Your task to perform on an android device: turn on javascript in the chrome app Image 0: 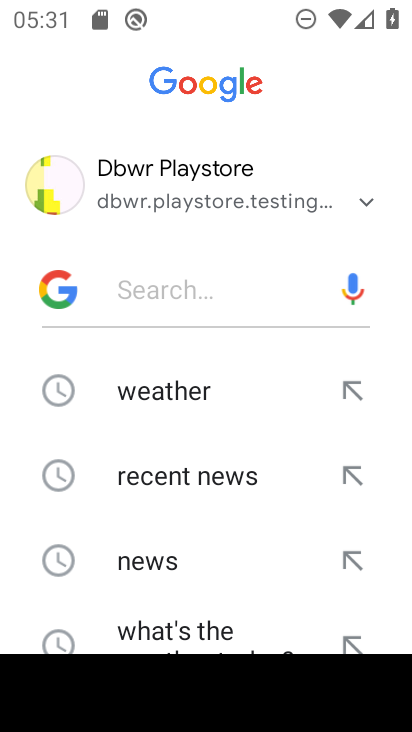
Step 0: press back button
Your task to perform on an android device: turn on javascript in the chrome app Image 1: 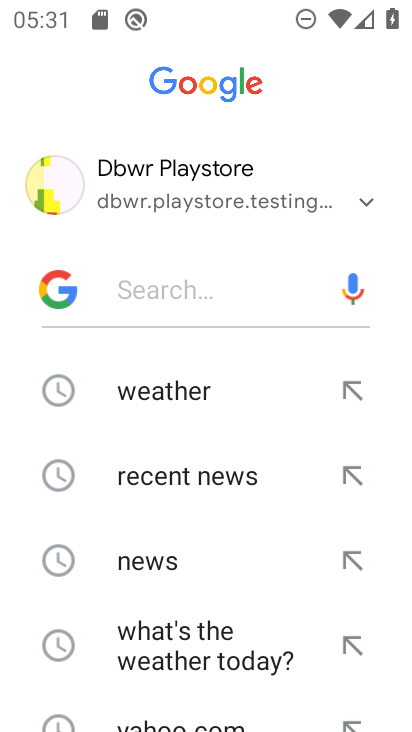
Step 1: press back button
Your task to perform on an android device: turn on javascript in the chrome app Image 2: 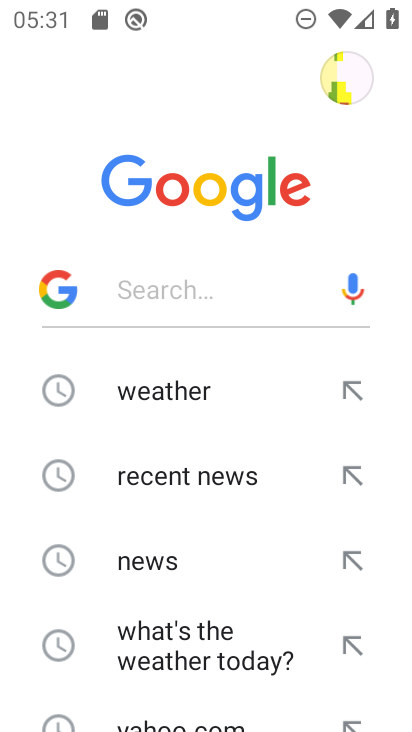
Step 2: press home button
Your task to perform on an android device: turn on javascript in the chrome app Image 3: 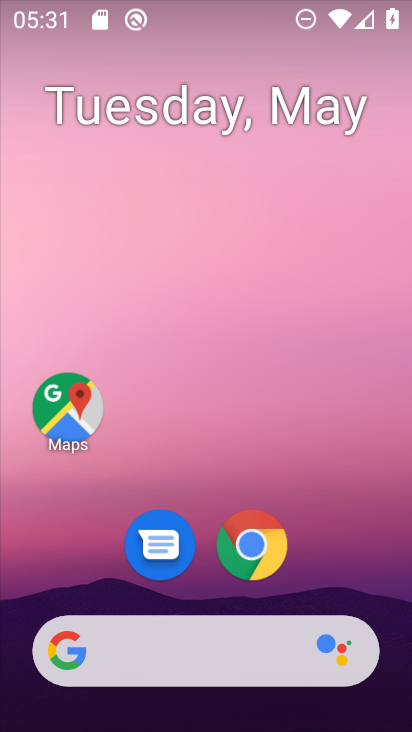
Step 3: click (247, 541)
Your task to perform on an android device: turn on javascript in the chrome app Image 4: 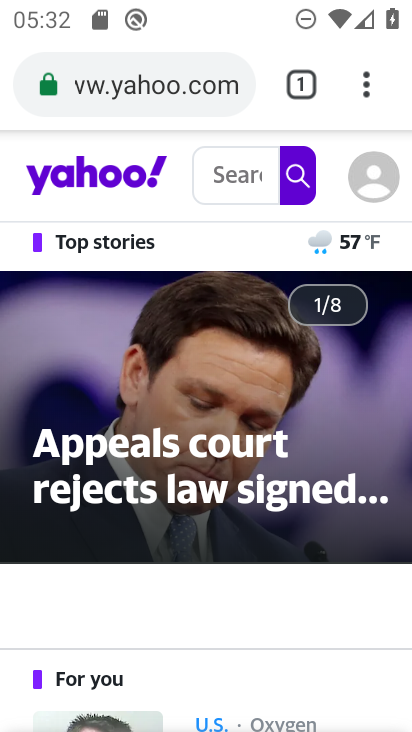
Step 4: drag from (370, 76) to (164, 594)
Your task to perform on an android device: turn on javascript in the chrome app Image 5: 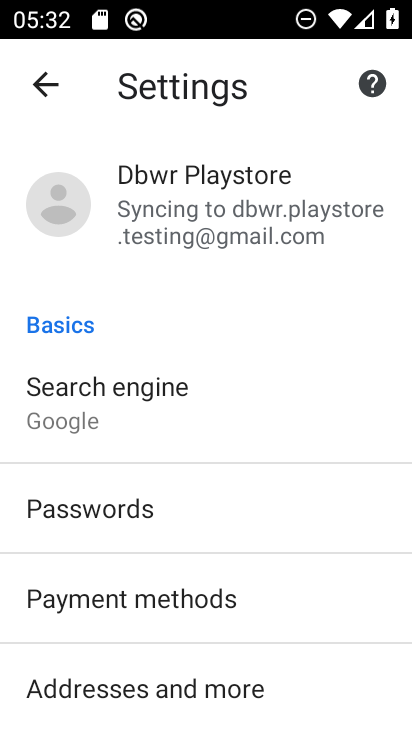
Step 5: drag from (258, 668) to (249, 295)
Your task to perform on an android device: turn on javascript in the chrome app Image 6: 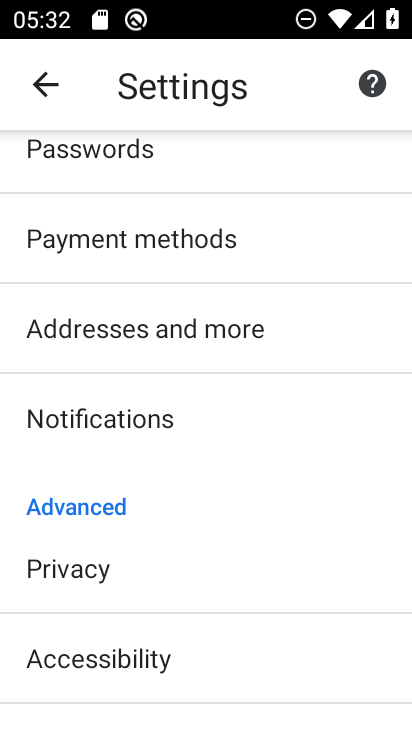
Step 6: drag from (256, 606) to (270, 192)
Your task to perform on an android device: turn on javascript in the chrome app Image 7: 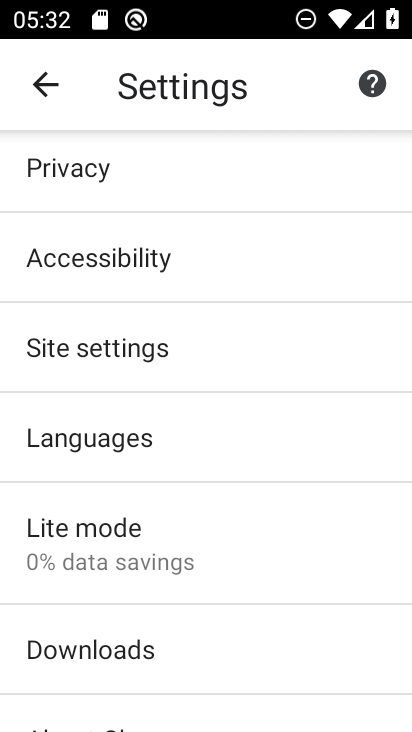
Step 7: click (154, 249)
Your task to perform on an android device: turn on javascript in the chrome app Image 8: 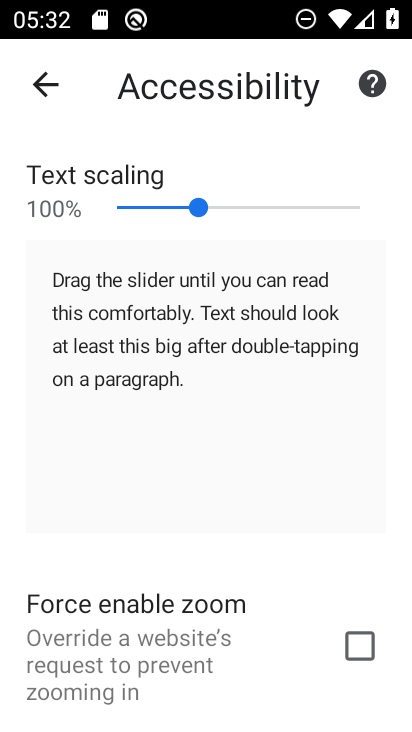
Step 8: click (46, 89)
Your task to perform on an android device: turn on javascript in the chrome app Image 9: 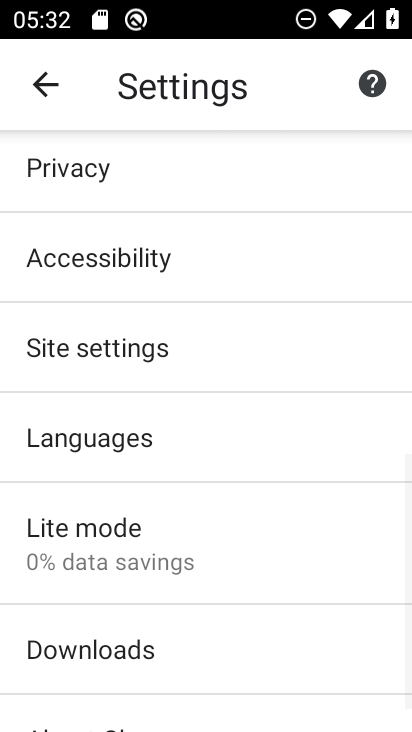
Step 9: drag from (244, 254) to (268, 574)
Your task to perform on an android device: turn on javascript in the chrome app Image 10: 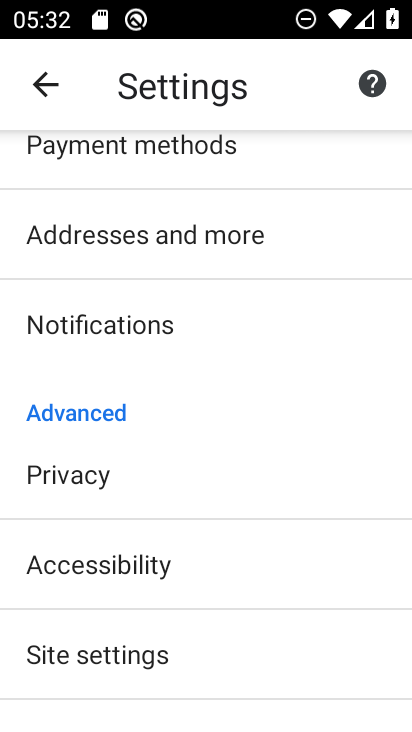
Step 10: drag from (249, 632) to (278, 409)
Your task to perform on an android device: turn on javascript in the chrome app Image 11: 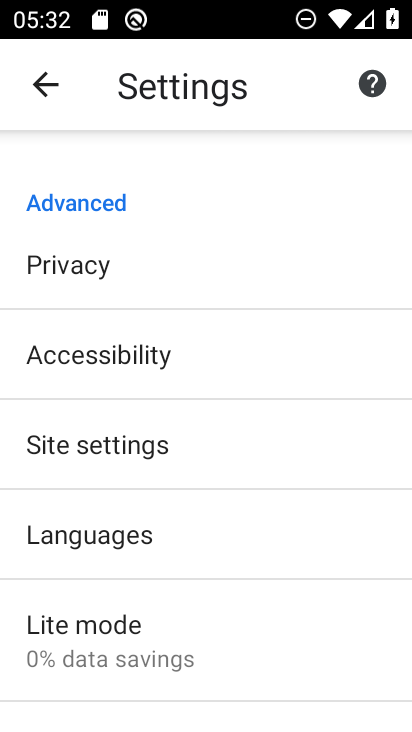
Step 11: click (176, 427)
Your task to perform on an android device: turn on javascript in the chrome app Image 12: 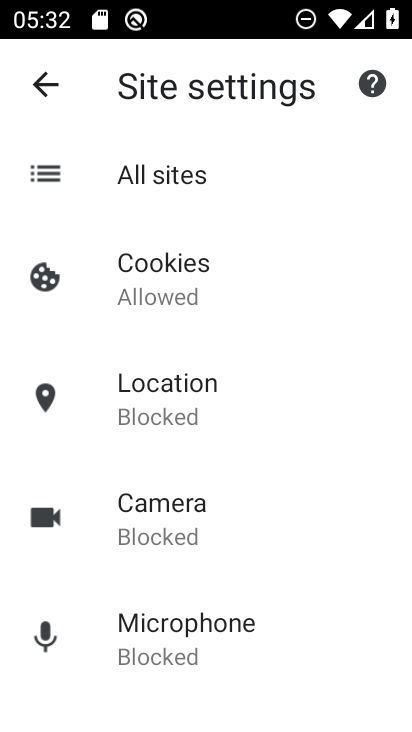
Step 12: drag from (262, 530) to (262, 136)
Your task to perform on an android device: turn on javascript in the chrome app Image 13: 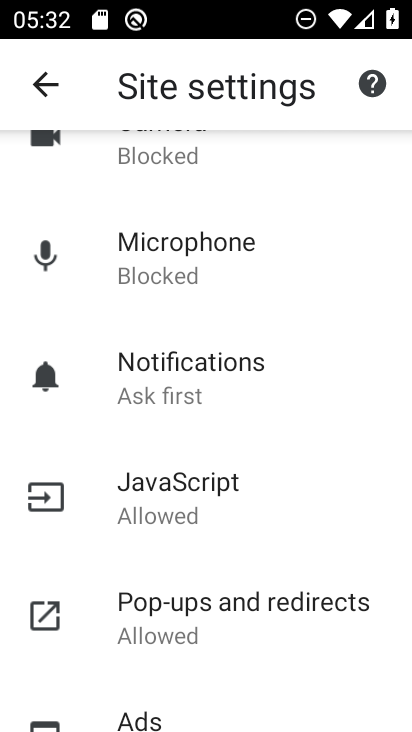
Step 13: click (201, 485)
Your task to perform on an android device: turn on javascript in the chrome app Image 14: 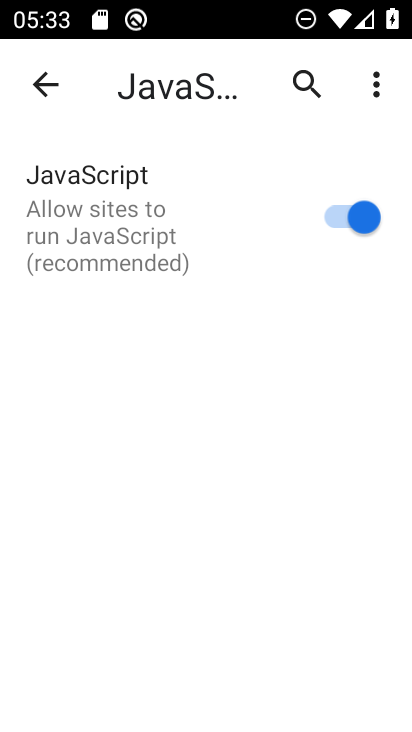
Step 14: task complete